Your task to perform on an android device: empty trash in the gmail app Image 0: 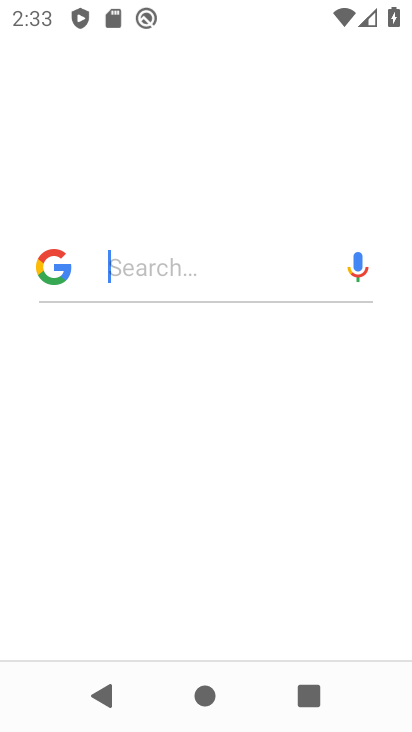
Step 0: click (222, 403)
Your task to perform on an android device: empty trash in the gmail app Image 1: 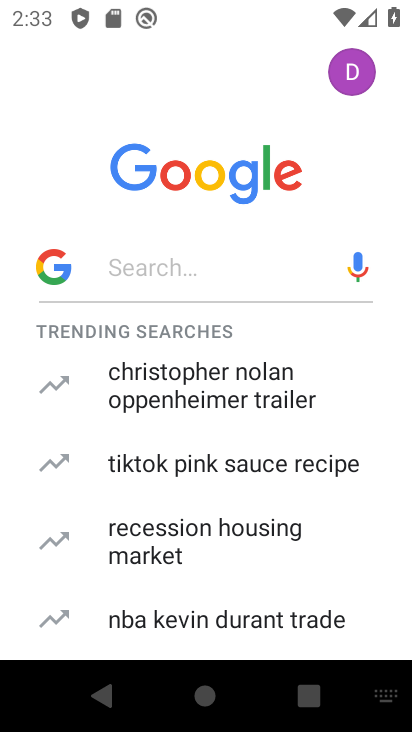
Step 1: press back button
Your task to perform on an android device: empty trash in the gmail app Image 2: 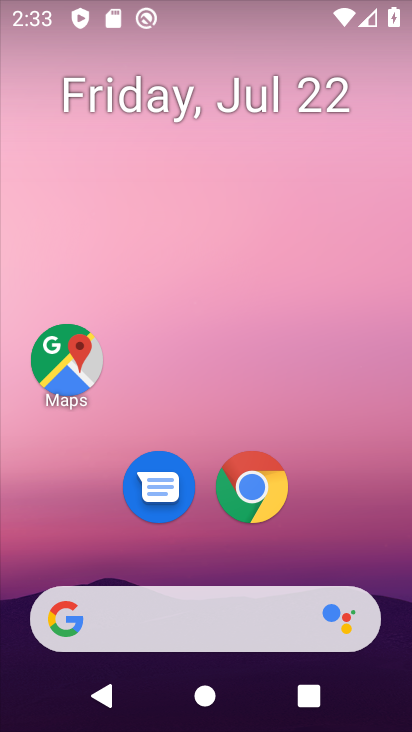
Step 2: drag from (128, 490) to (216, 14)
Your task to perform on an android device: empty trash in the gmail app Image 3: 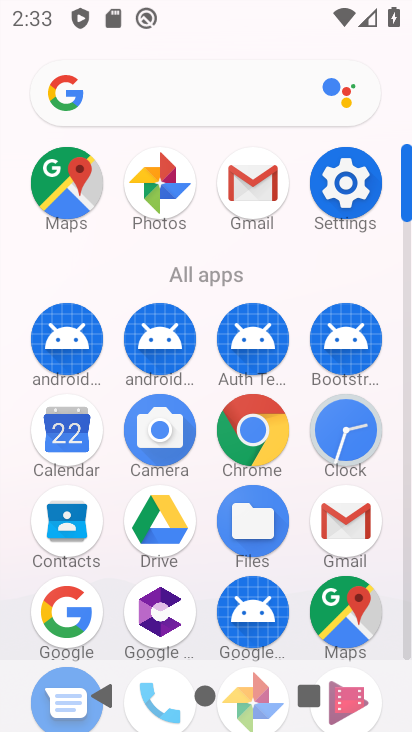
Step 3: click (250, 178)
Your task to perform on an android device: empty trash in the gmail app Image 4: 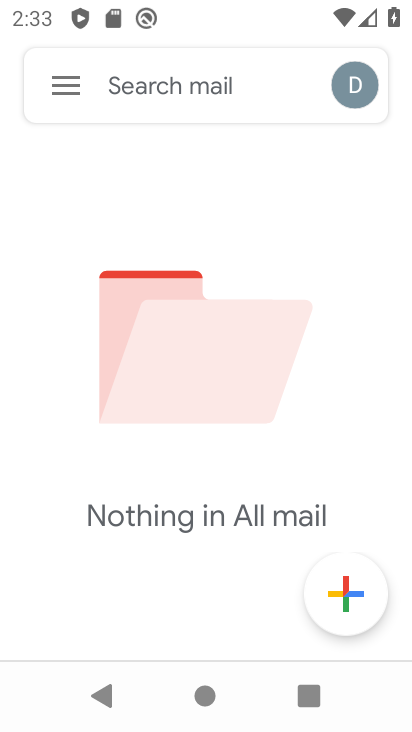
Step 4: click (69, 86)
Your task to perform on an android device: empty trash in the gmail app Image 5: 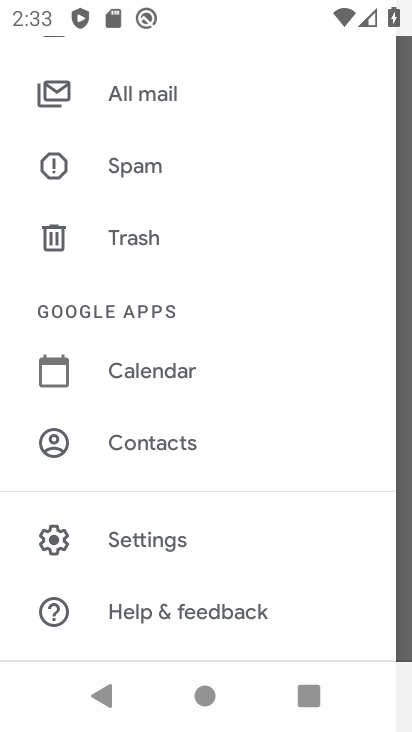
Step 5: drag from (161, 182) to (181, 314)
Your task to perform on an android device: empty trash in the gmail app Image 6: 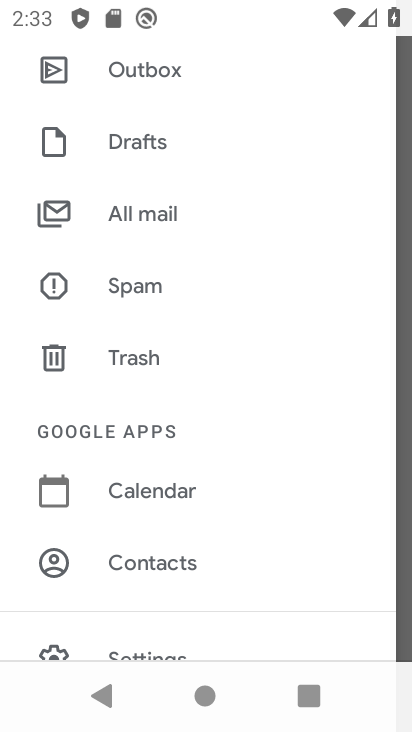
Step 6: click (135, 355)
Your task to perform on an android device: empty trash in the gmail app Image 7: 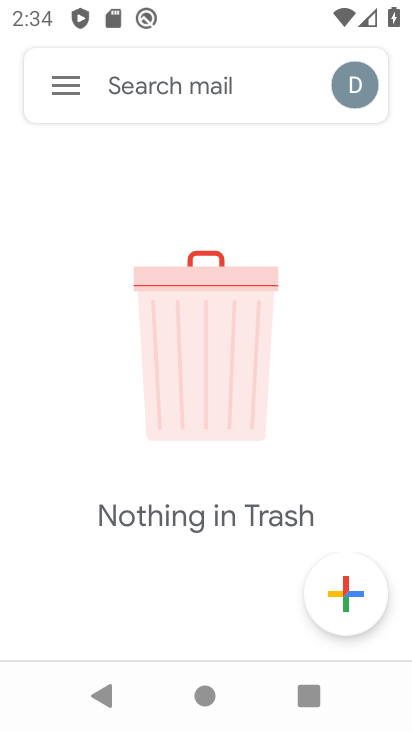
Step 7: task complete